Your task to perform on an android device: change text size in settings app Image 0: 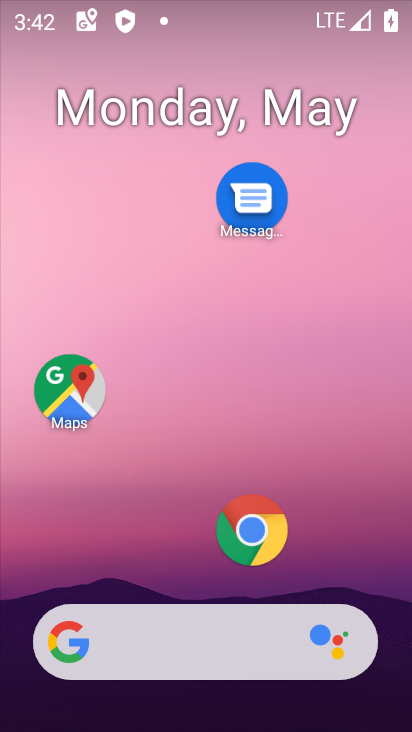
Step 0: drag from (152, 499) to (210, 140)
Your task to perform on an android device: change text size in settings app Image 1: 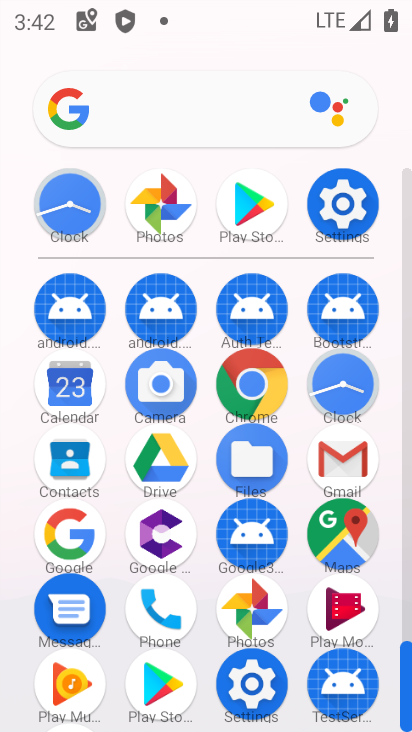
Step 1: click (346, 215)
Your task to perform on an android device: change text size in settings app Image 2: 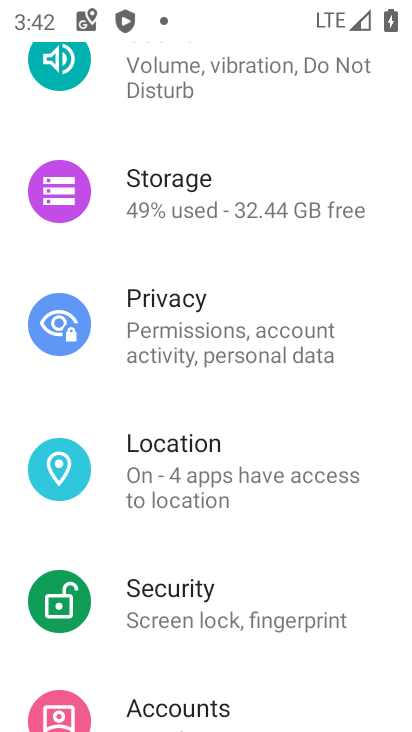
Step 2: drag from (214, 102) to (186, 652)
Your task to perform on an android device: change text size in settings app Image 3: 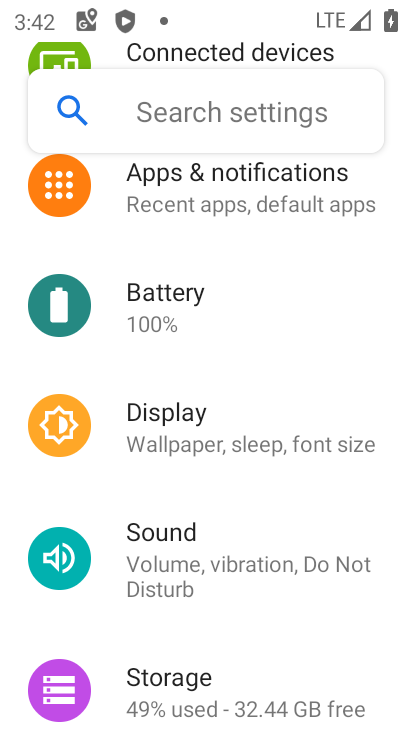
Step 3: click (157, 90)
Your task to perform on an android device: change text size in settings app Image 4: 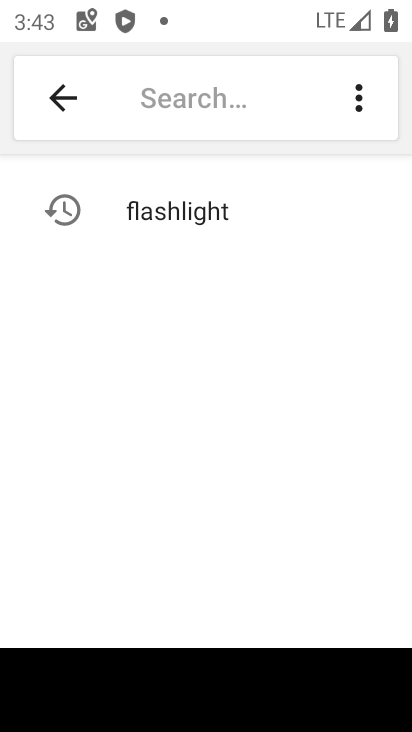
Step 4: type "text size"
Your task to perform on an android device: change text size in settings app Image 5: 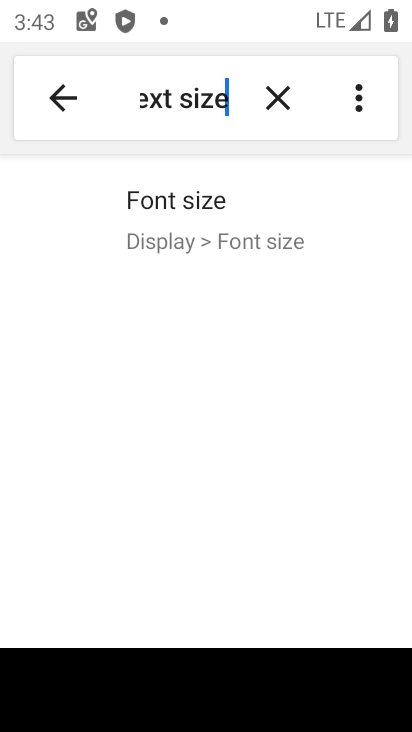
Step 5: click (196, 218)
Your task to perform on an android device: change text size in settings app Image 6: 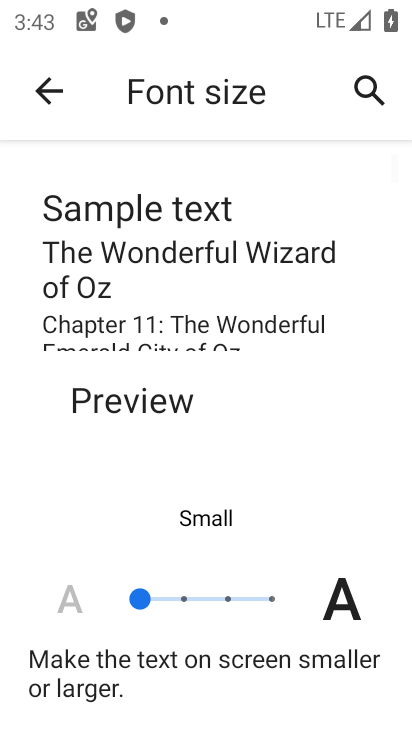
Step 6: click (196, 592)
Your task to perform on an android device: change text size in settings app Image 7: 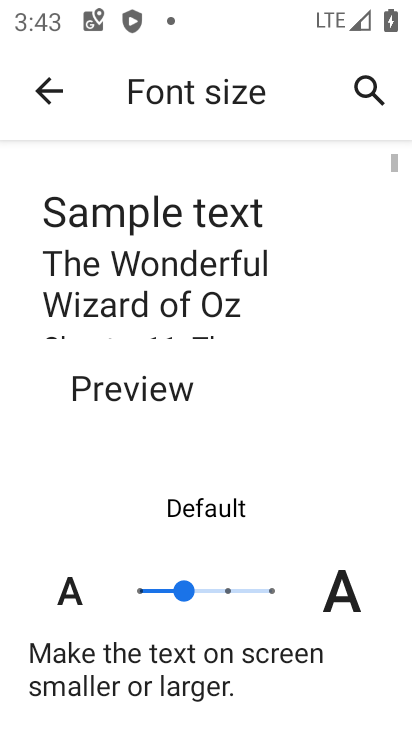
Step 7: click (218, 598)
Your task to perform on an android device: change text size in settings app Image 8: 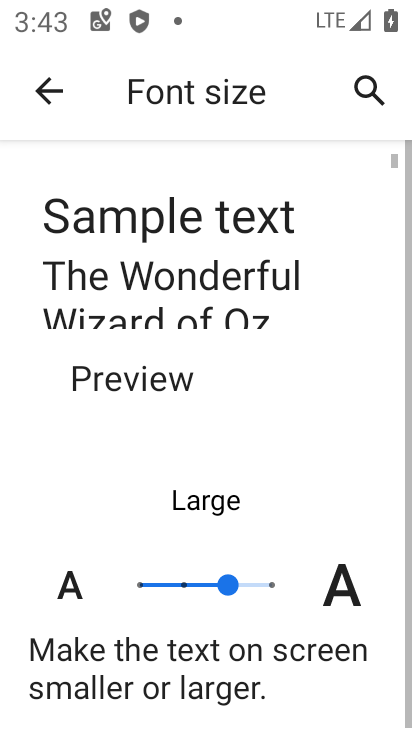
Step 8: task complete